Your task to perform on an android device: Search for pizza restaurants on Maps Image 0: 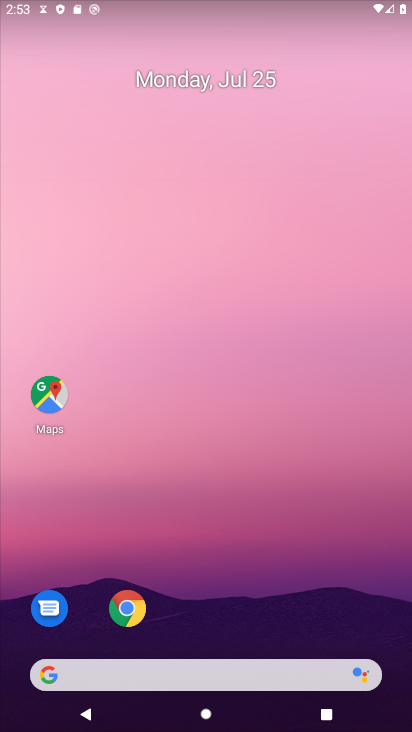
Step 0: click (44, 383)
Your task to perform on an android device: Search for pizza restaurants on Maps Image 1: 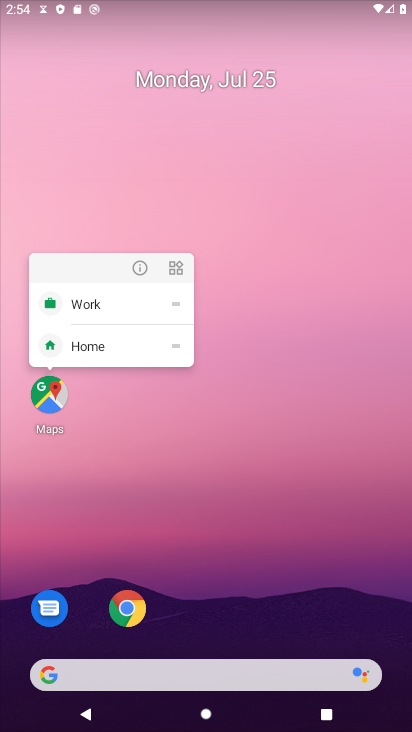
Step 1: click (37, 416)
Your task to perform on an android device: Search for pizza restaurants on Maps Image 2: 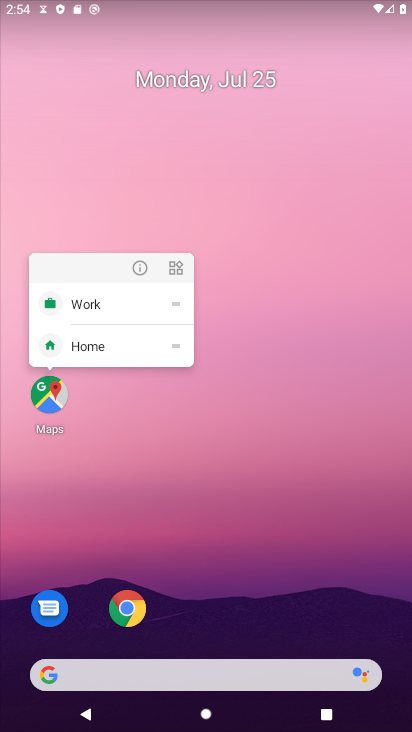
Step 2: click (45, 393)
Your task to perform on an android device: Search for pizza restaurants on Maps Image 3: 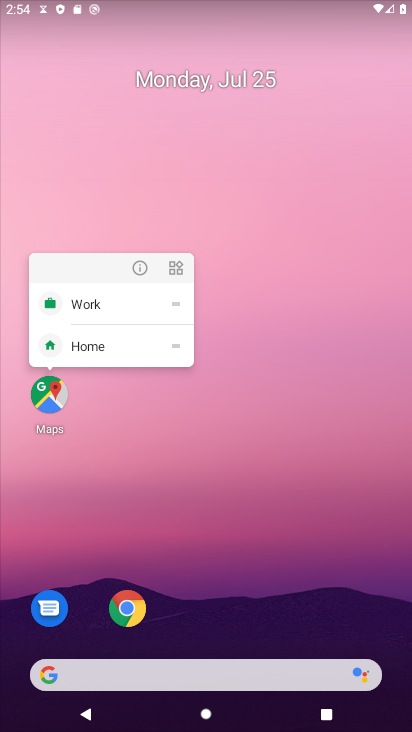
Step 3: click (54, 405)
Your task to perform on an android device: Search for pizza restaurants on Maps Image 4: 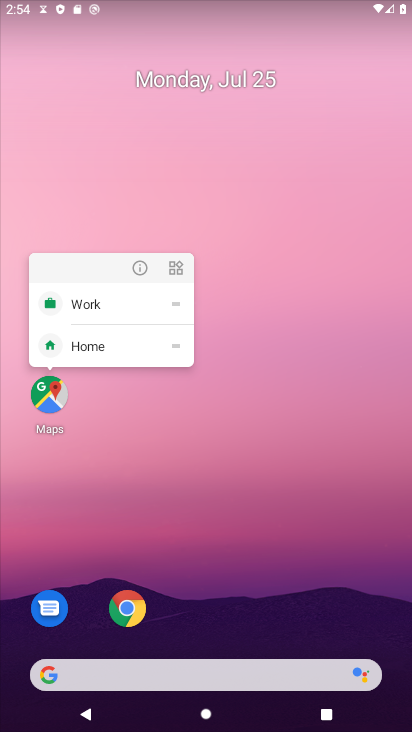
Step 4: click (50, 415)
Your task to perform on an android device: Search for pizza restaurants on Maps Image 5: 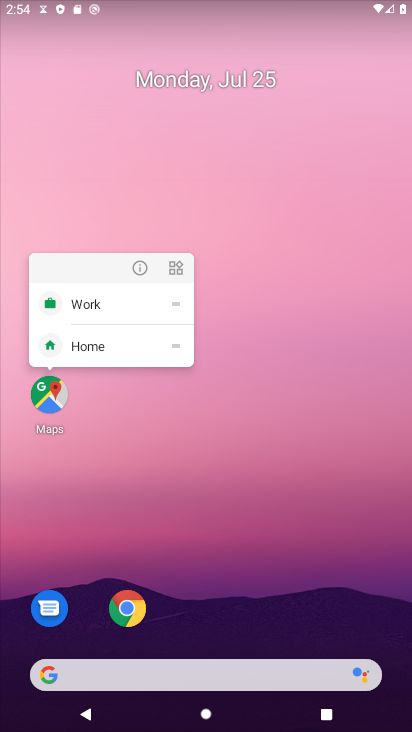
Step 5: click (48, 411)
Your task to perform on an android device: Search for pizza restaurants on Maps Image 6: 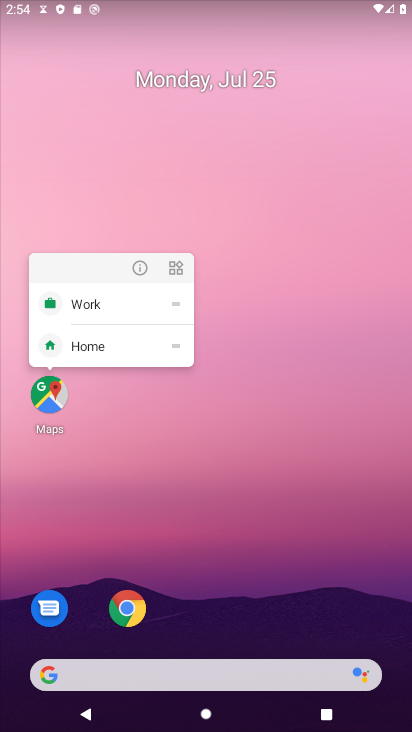
Step 6: click (54, 391)
Your task to perform on an android device: Search for pizza restaurants on Maps Image 7: 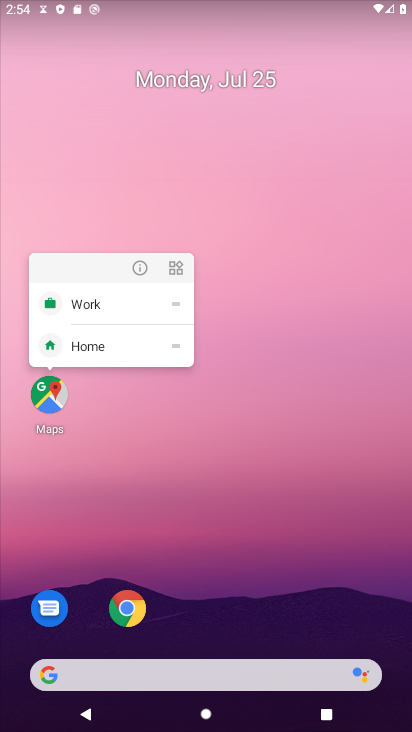
Step 7: click (53, 391)
Your task to perform on an android device: Search for pizza restaurants on Maps Image 8: 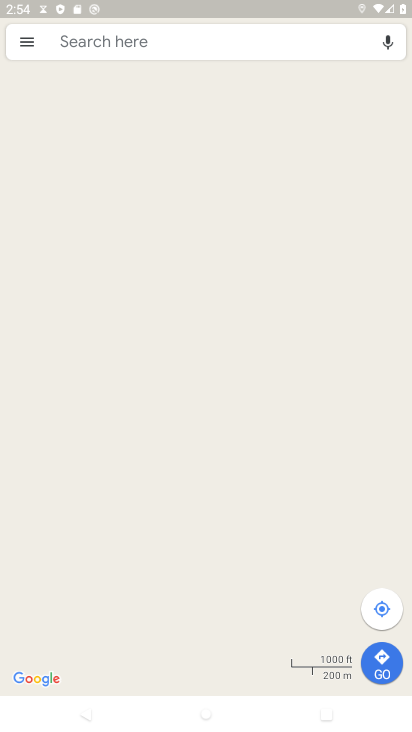
Step 8: click (146, 45)
Your task to perform on an android device: Search for pizza restaurants on Maps Image 9: 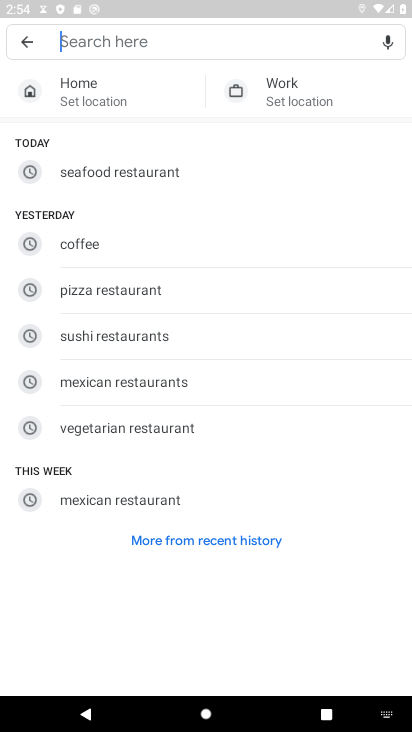
Step 9: type "Pizza restaurants"
Your task to perform on an android device: Search for pizza restaurants on Maps Image 10: 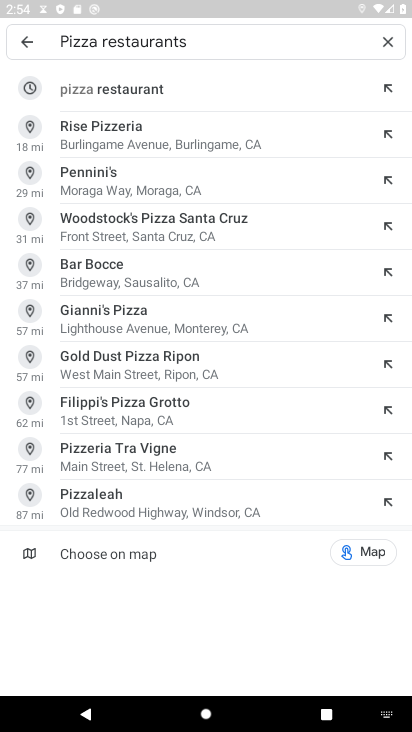
Step 10: click (94, 89)
Your task to perform on an android device: Search for pizza restaurants on Maps Image 11: 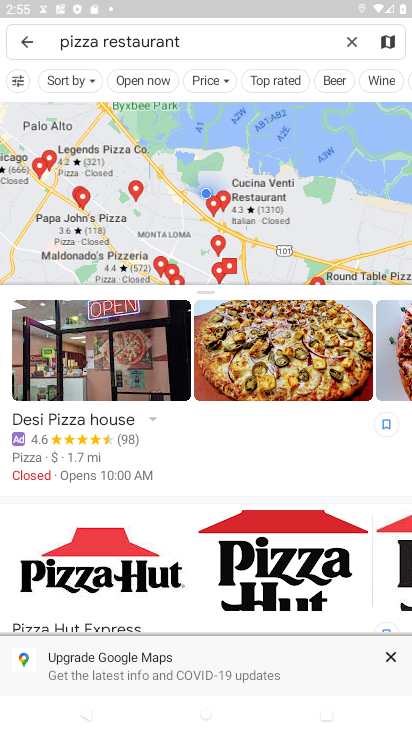
Step 11: task complete